Your task to perform on an android device: Add "logitech g pro" to the cart on ebay, then select checkout. Image 0: 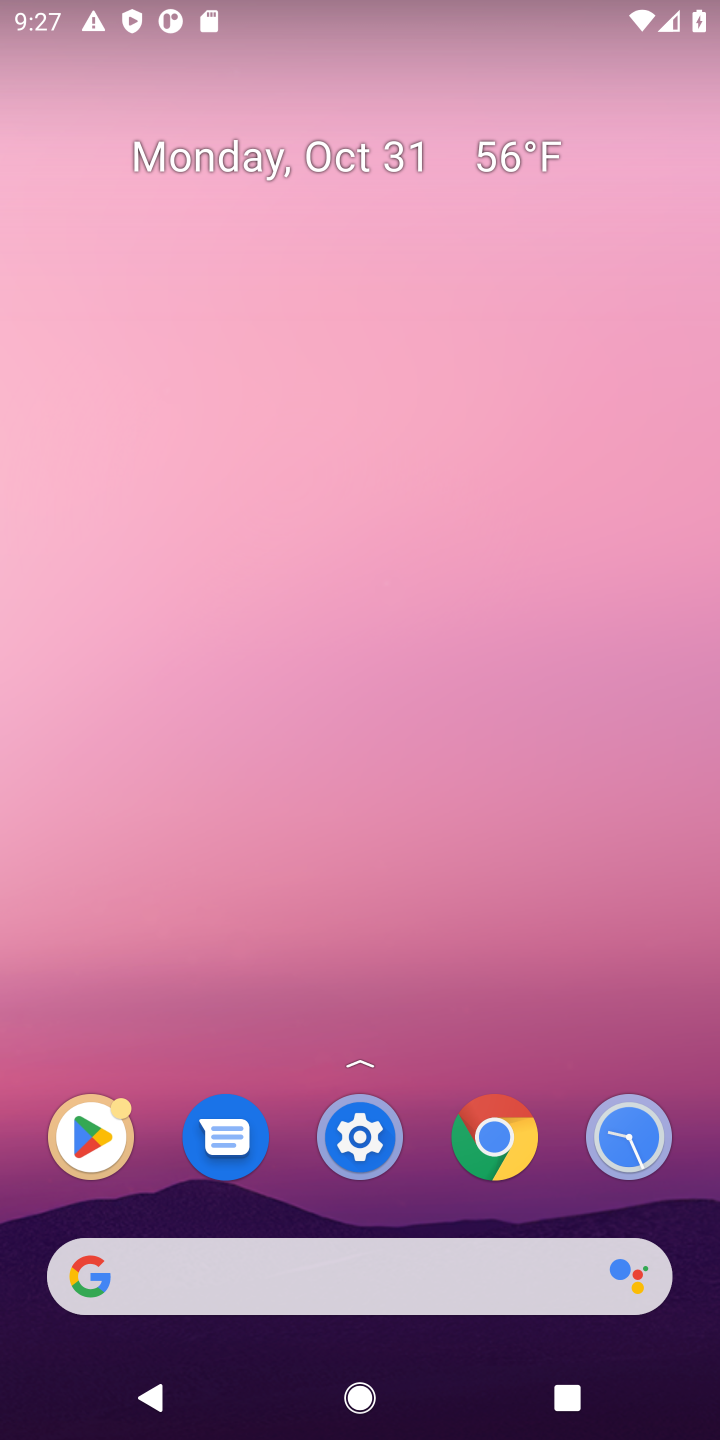
Step 0: click (495, 1139)
Your task to perform on an android device: Add "logitech g pro" to the cart on ebay, then select checkout. Image 1: 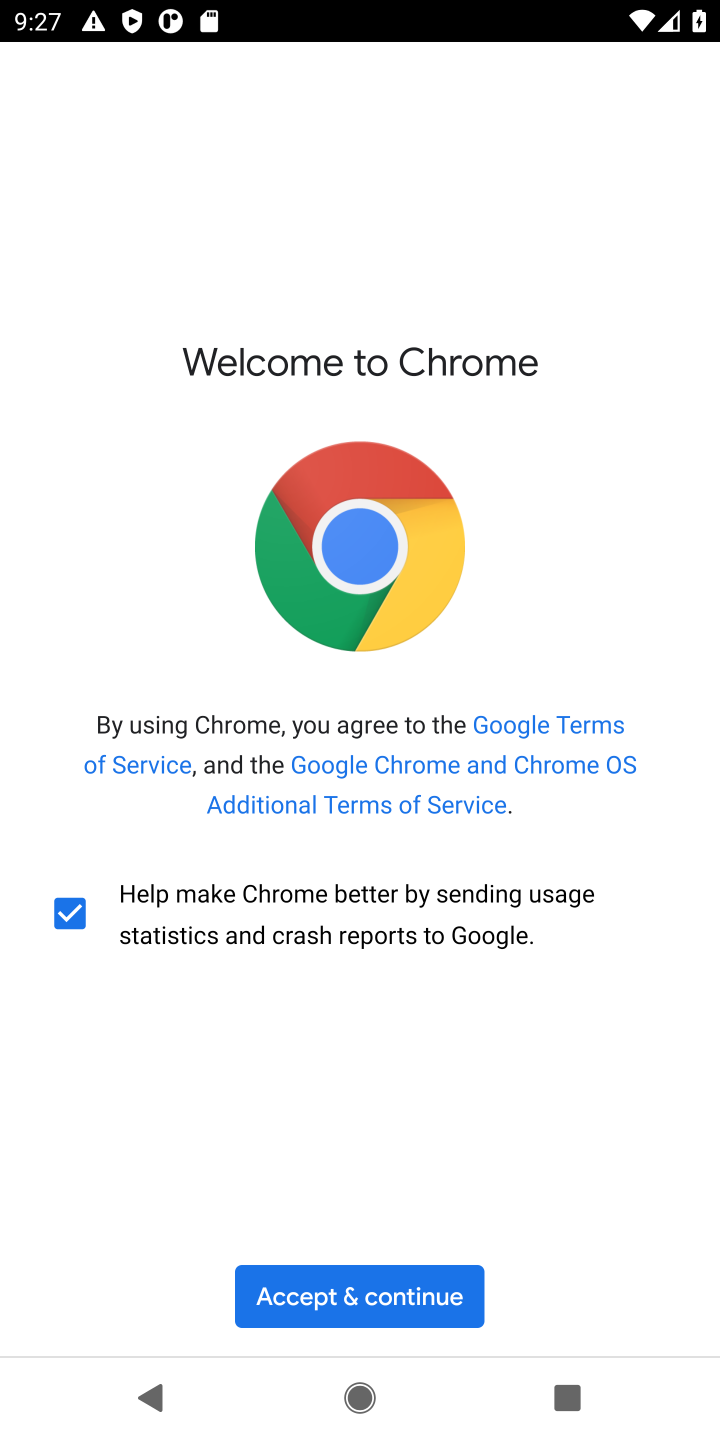
Step 1: click (411, 1288)
Your task to perform on an android device: Add "logitech g pro" to the cart on ebay, then select checkout. Image 2: 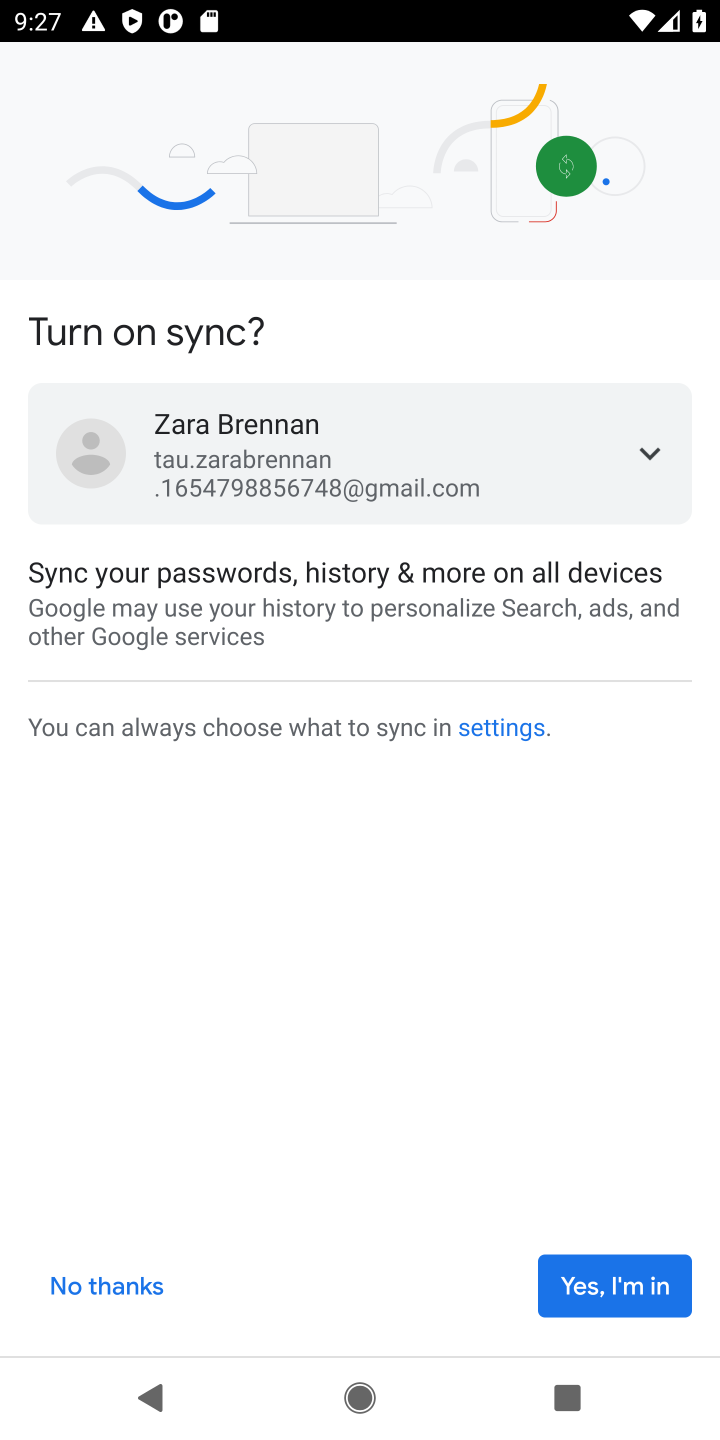
Step 2: click (613, 1271)
Your task to perform on an android device: Add "logitech g pro" to the cart on ebay, then select checkout. Image 3: 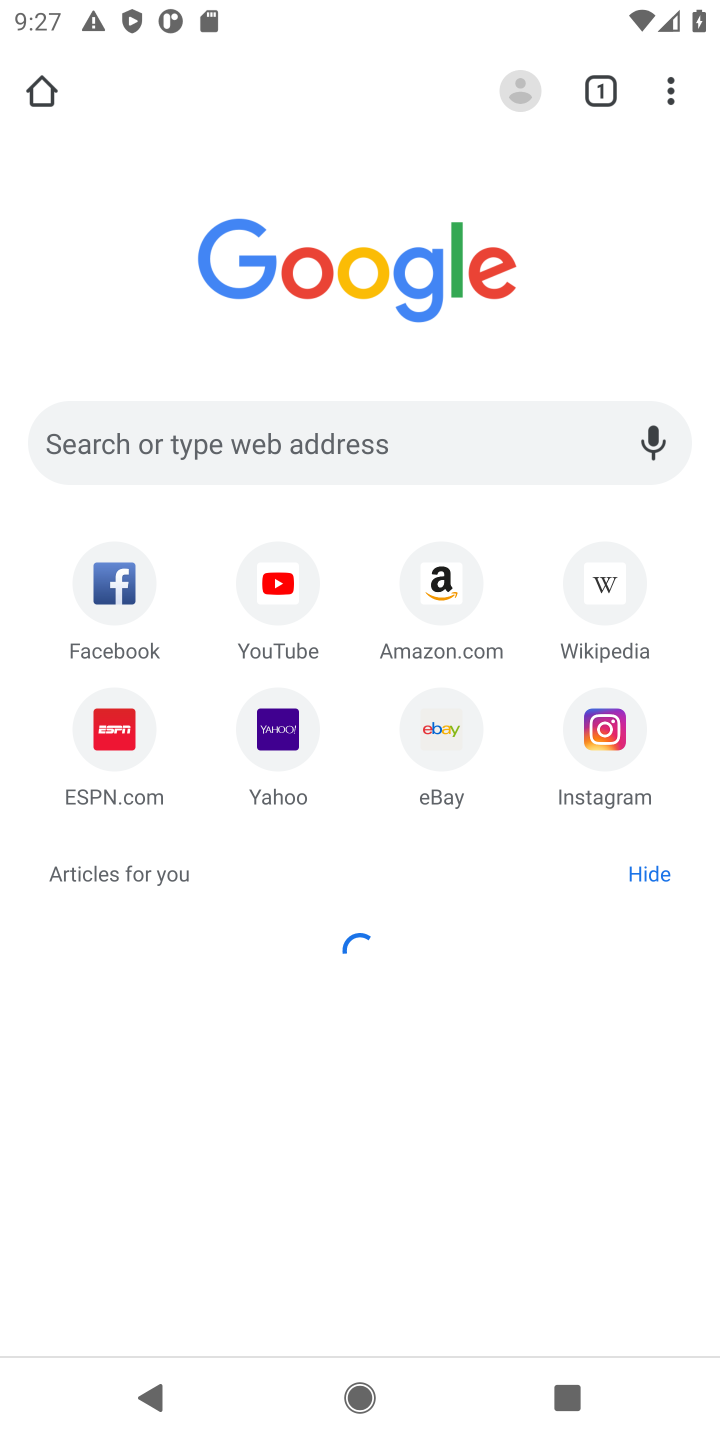
Step 3: click (497, 439)
Your task to perform on an android device: Add "logitech g pro" to the cart on ebay, then select checkout. Image 4: 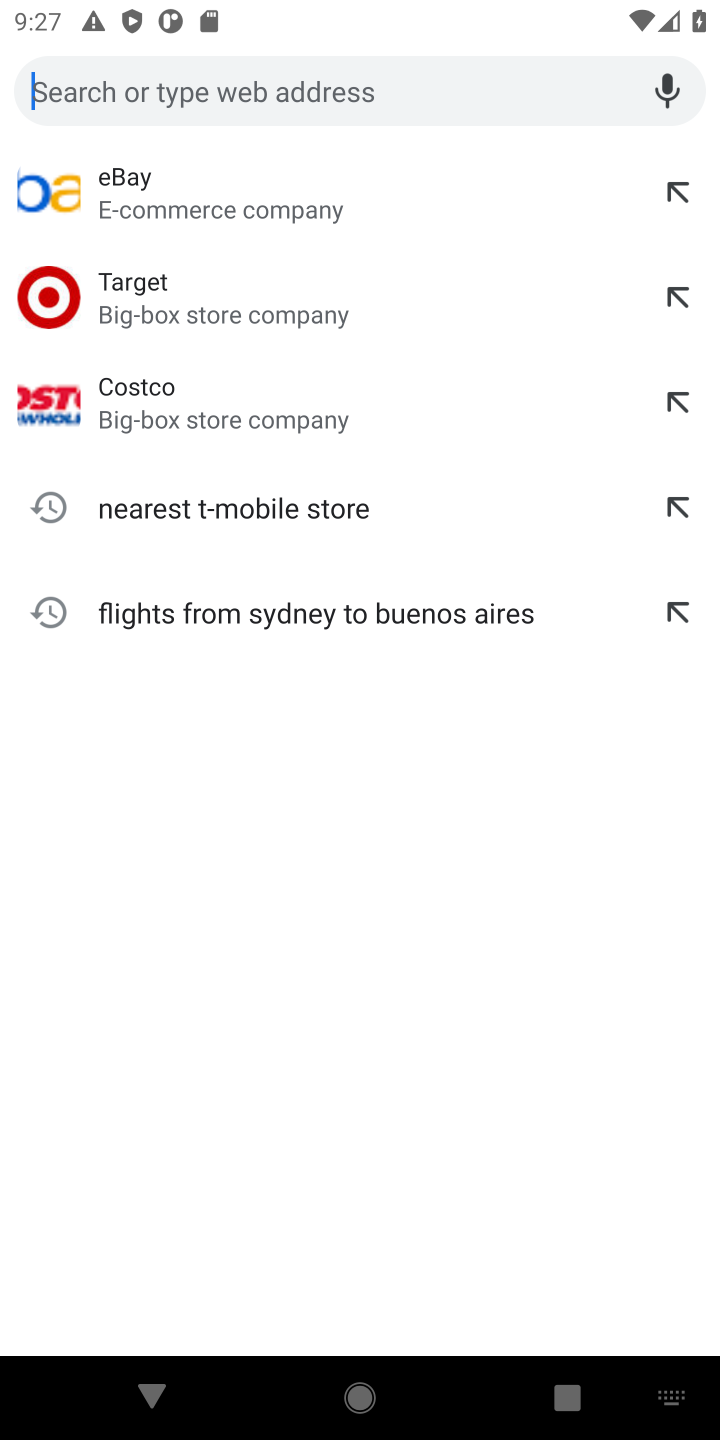
Step 4: type "ebay"
Your task to perform on an android device: Add "logitech g pro" to the cart on ebay, then select checkout. Image 5: 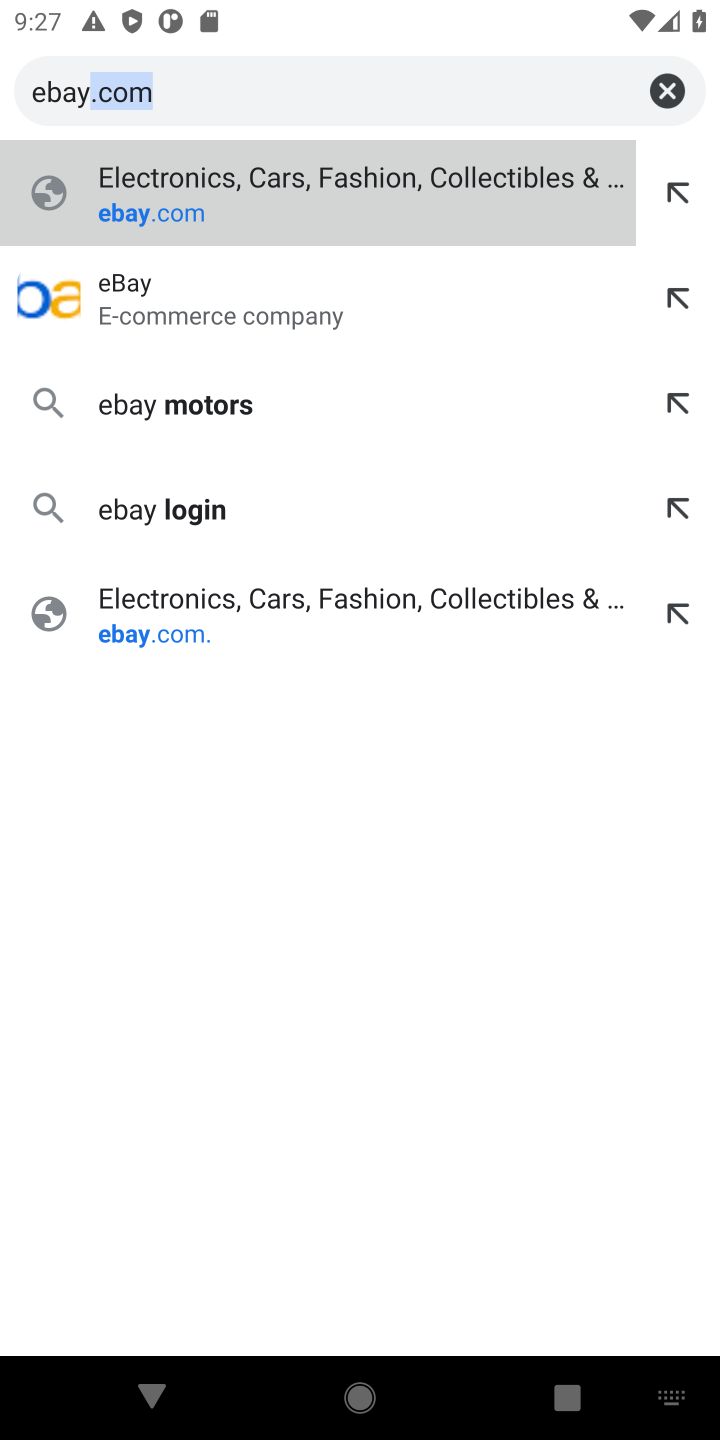
Step 5: click (109, 297)
Your task to perform on an android device: Add "logitech g pro" to the cart on ebay, then select checkout. Image 6: 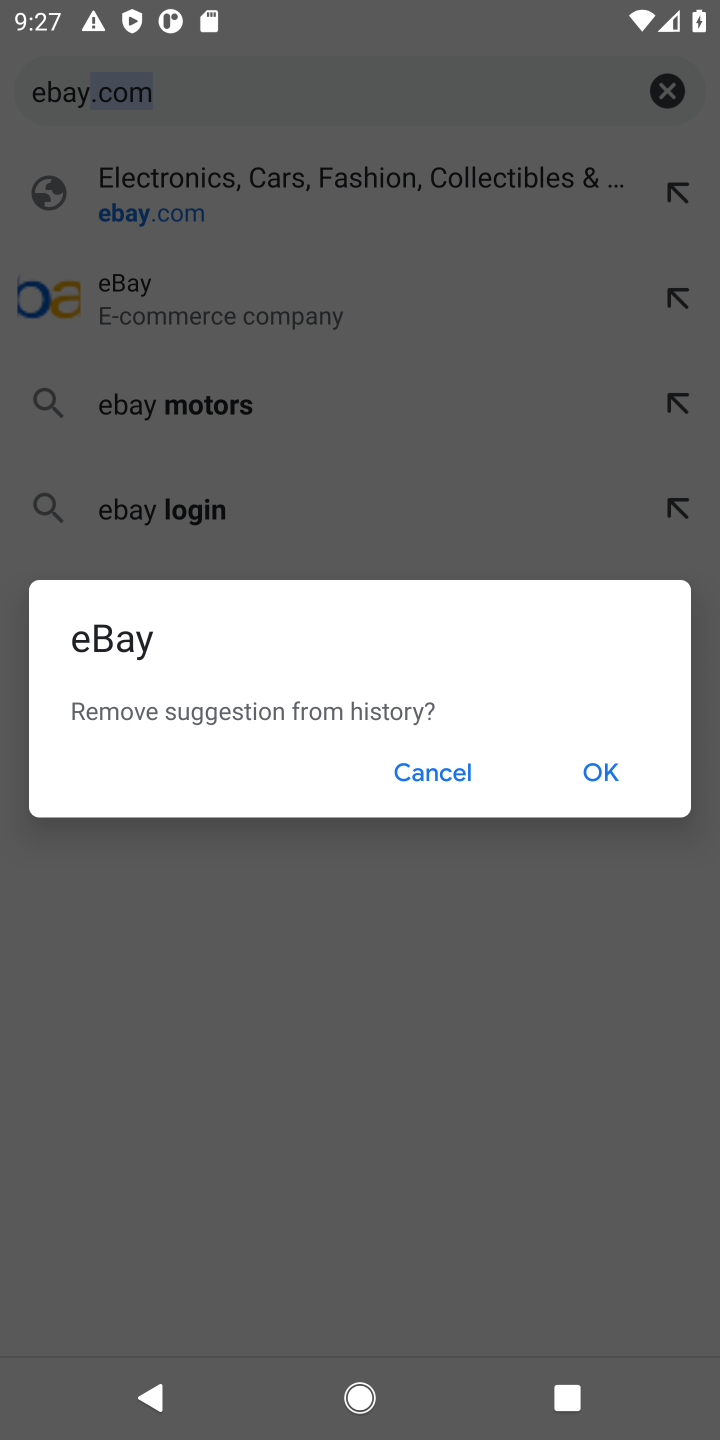
Step 6: click (585, 773)
Your task to perform on an android device: Add "logitech g pro" to the cart on ebay, then select checkout. Image 7: 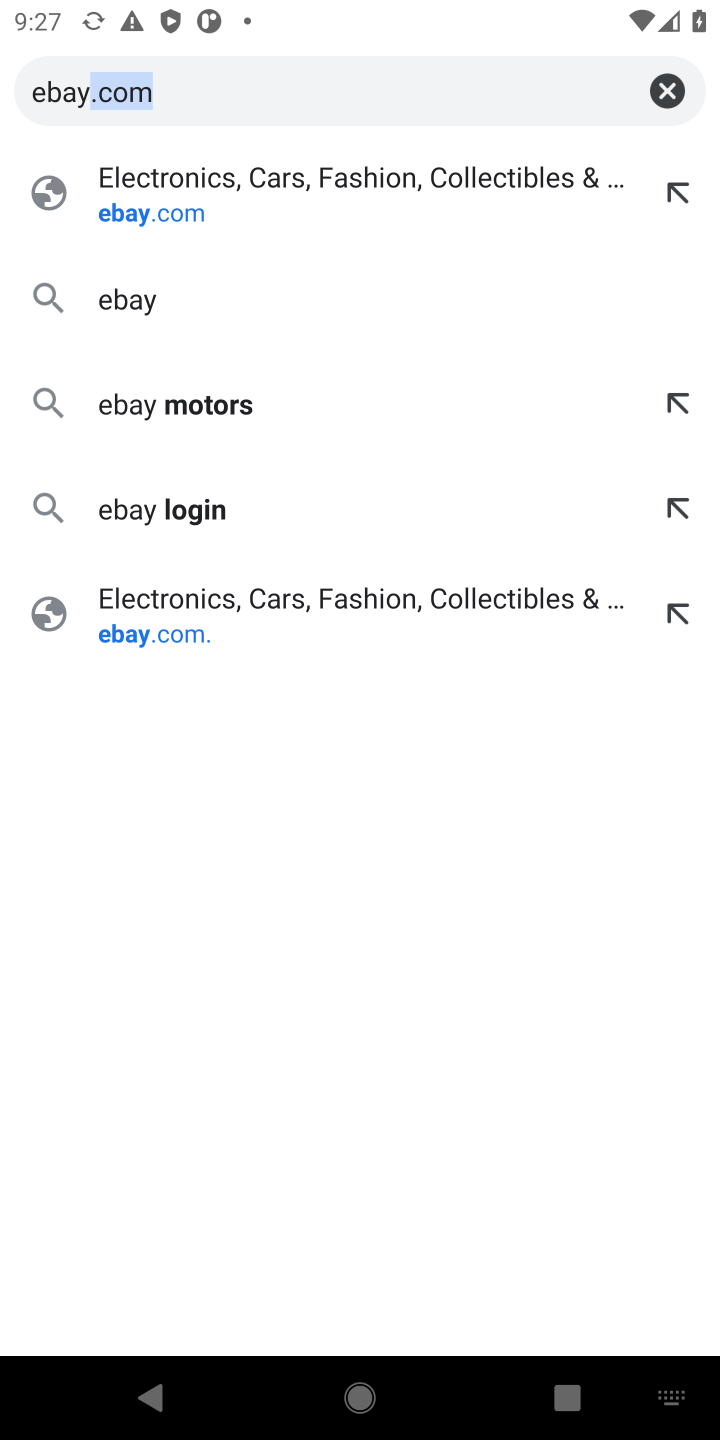
Step 7: click (198, 180)
Your task to perform on an android device: Add "logitech g pro" to the cart on ebay, then select checkout. Image 8: 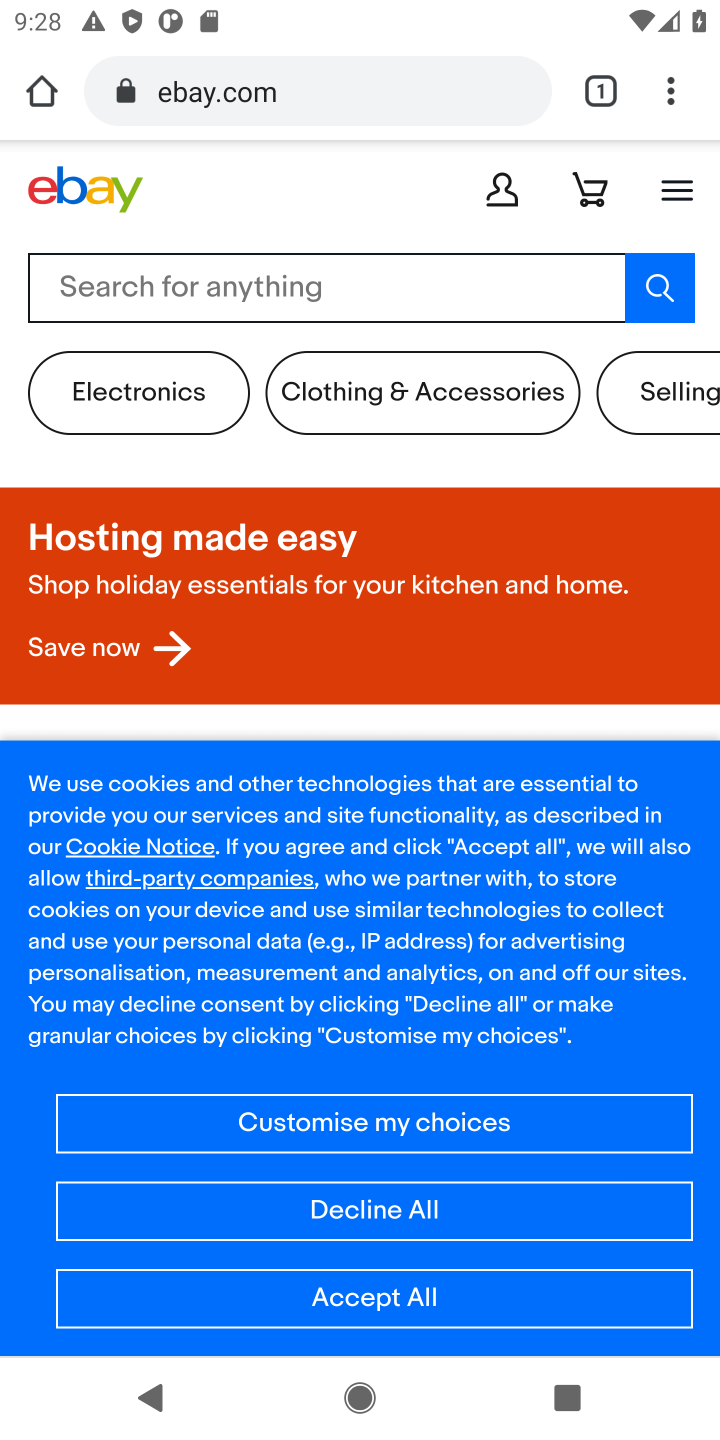
Step 8: click (441, 281)
Your task to perform on an android device: Add "logitech g pro" to the cart on ebay, then select checkout. Image 9: 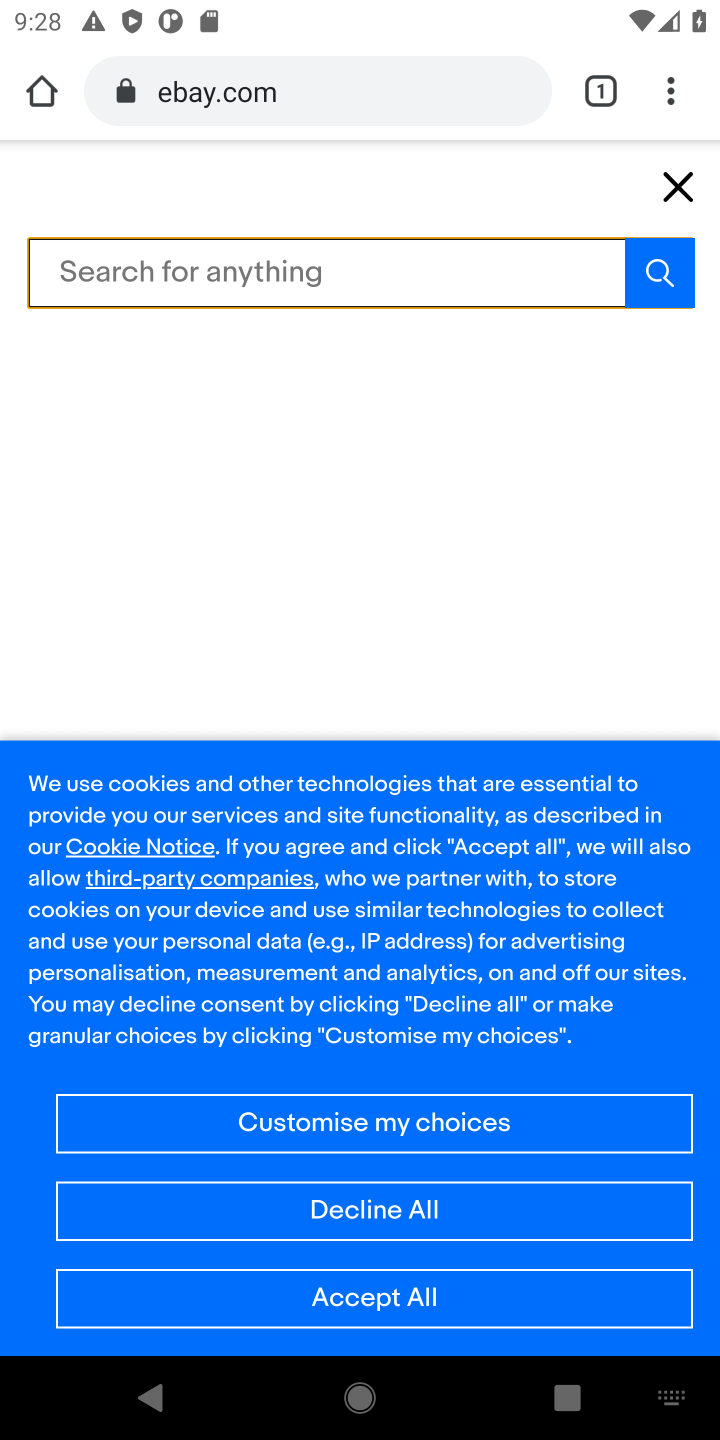
Step 9: click (415, 1304)
Your task to perform on an android device: Add "logitech g pro" to the cart on ebay, then select checkout. Image 10: 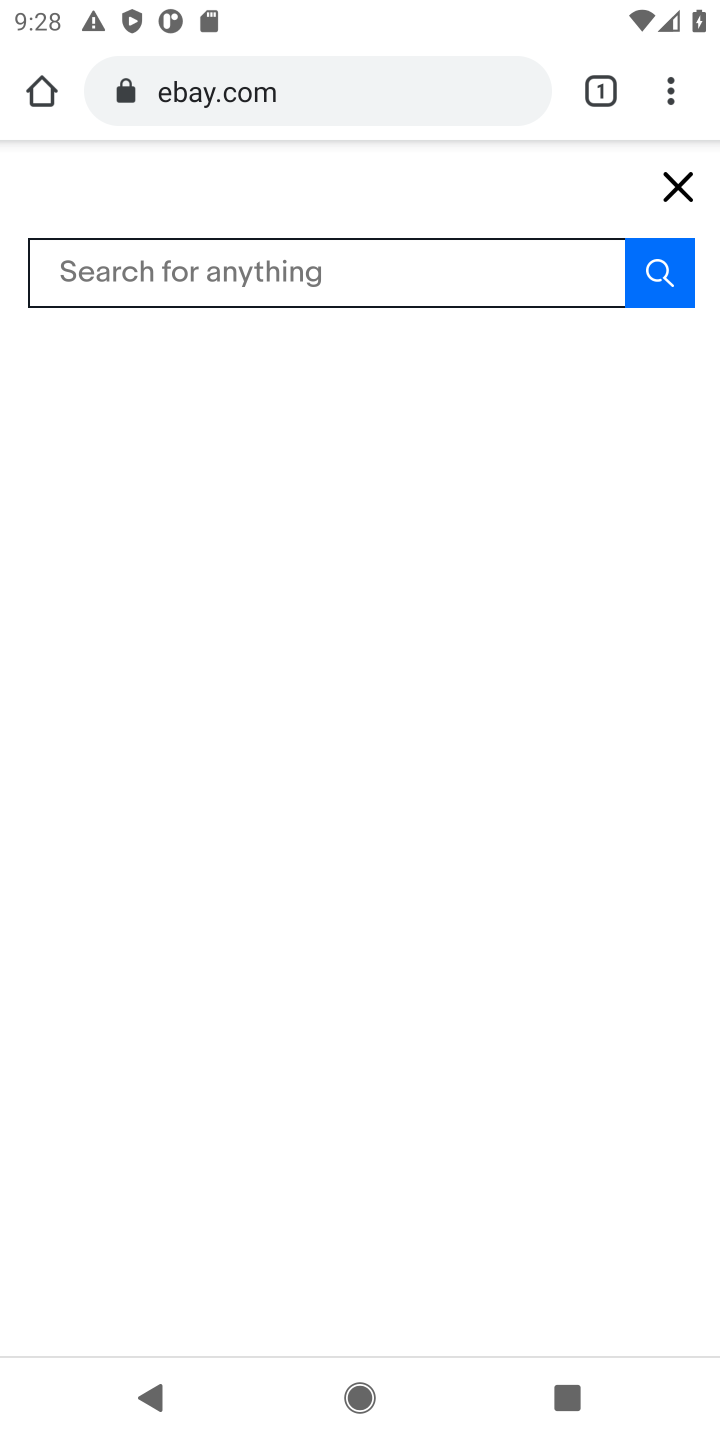
Step 10: click (343, 284)
Your task to perform on an android device: Add "logitech g pro" to the cart on ebay, then select checkout. Image 11: 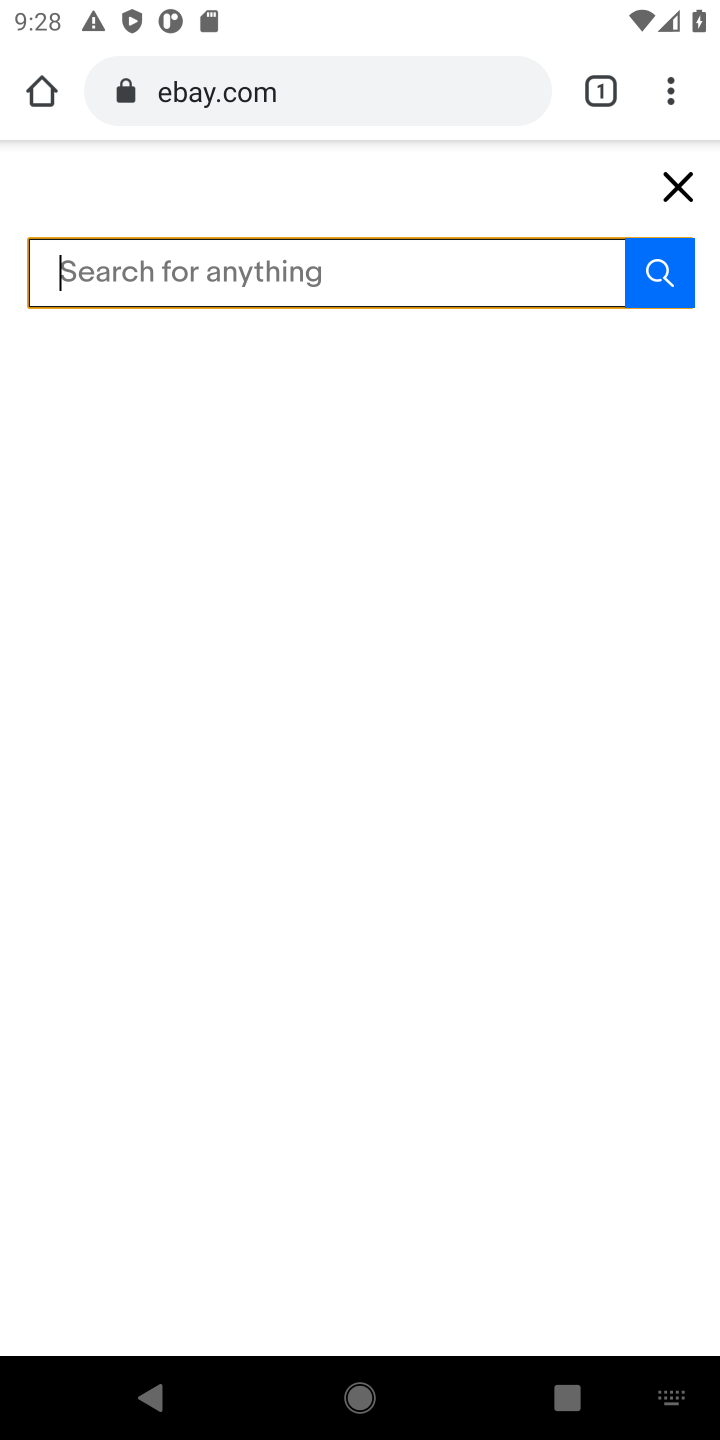
Step 11: type "logitech g pro"
Your task to perform on an android device: Add "logitech g pro" to the cart on ebay, then select checkout. Image 12: 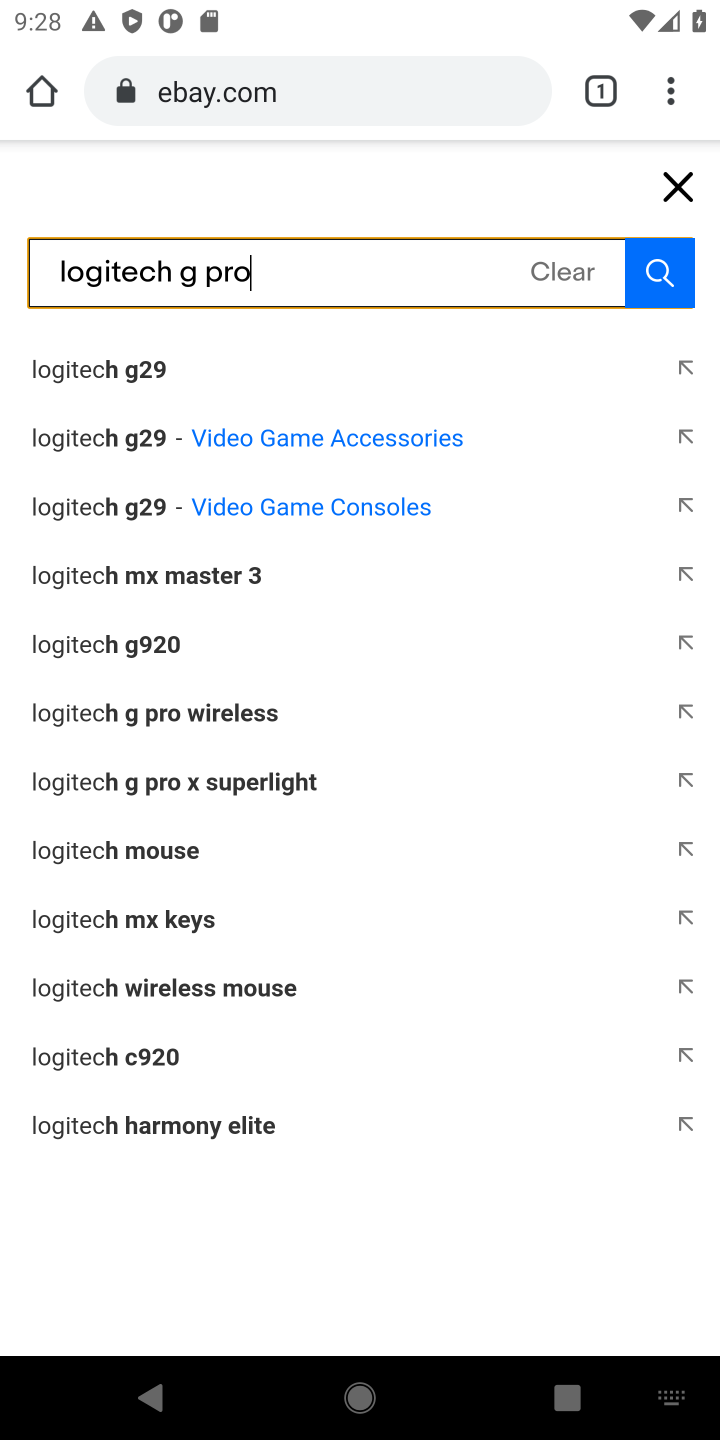
Step 12: click (672, 284)
Your task to perform on an android device: Add "logitech g pro" to the cart on ebay, then select checkout. Image 13: 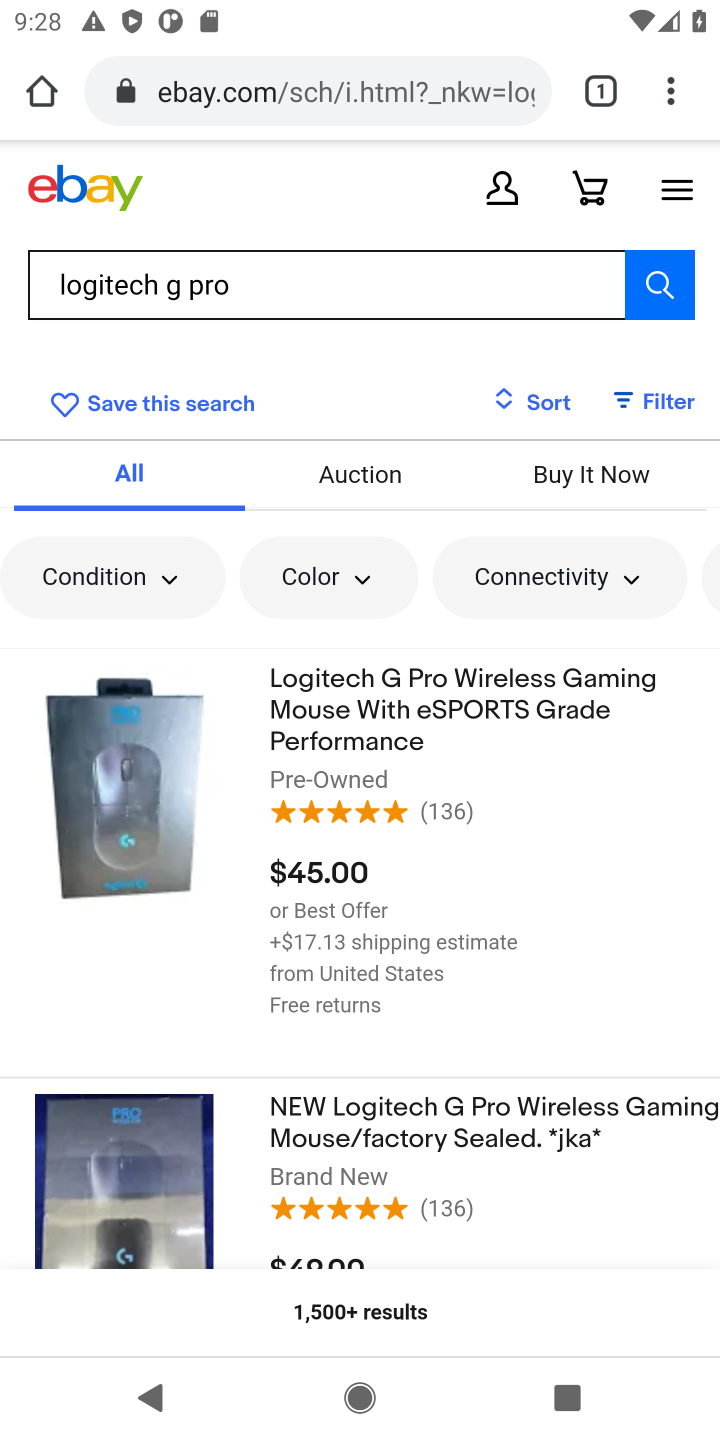
Step 13: click (375, 701)
Your task to perform on an android device: Add "logitech g pro" to the cart on ebay, then select checkout. Image 14: 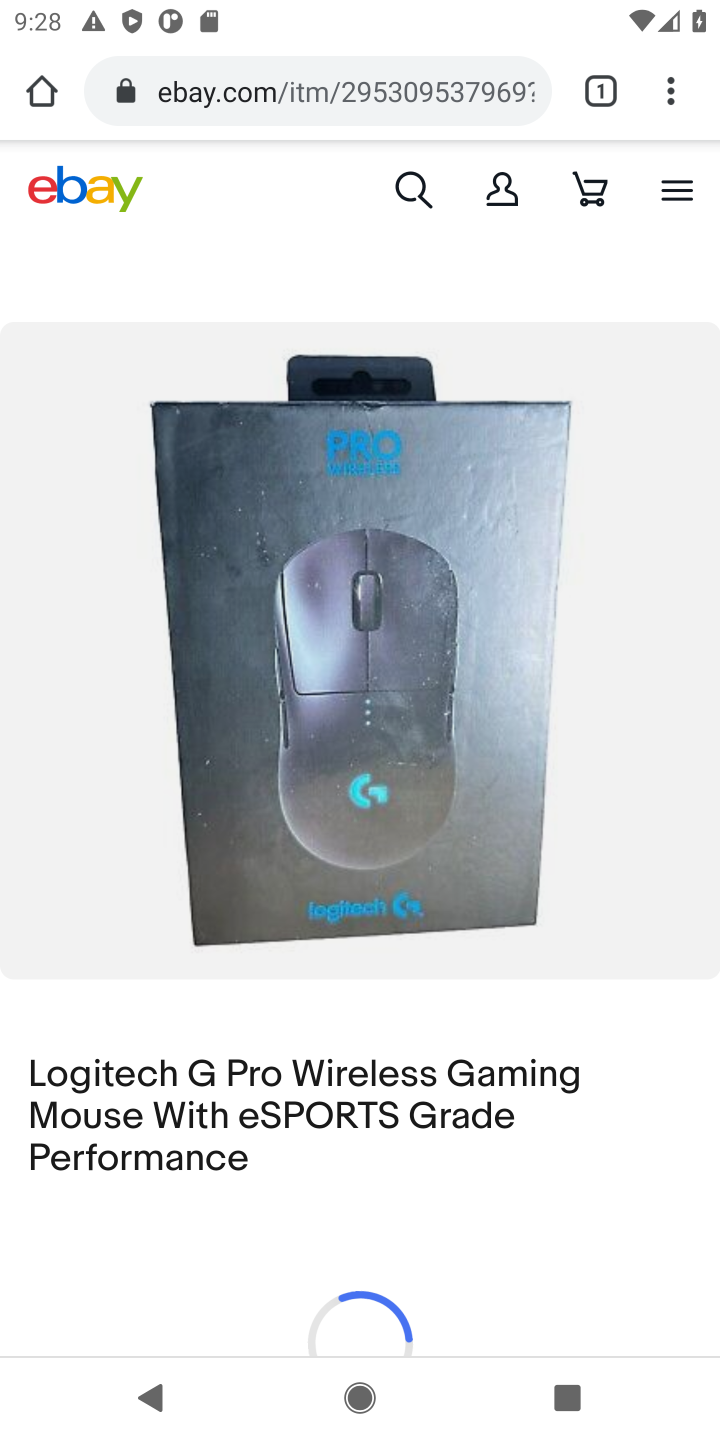
Step 14: drag from (479, 1089) to (492, 580)
Your task to perform on an android device: Add "logitech g pro" to the cart on ebay, then select checkout. Image 15: 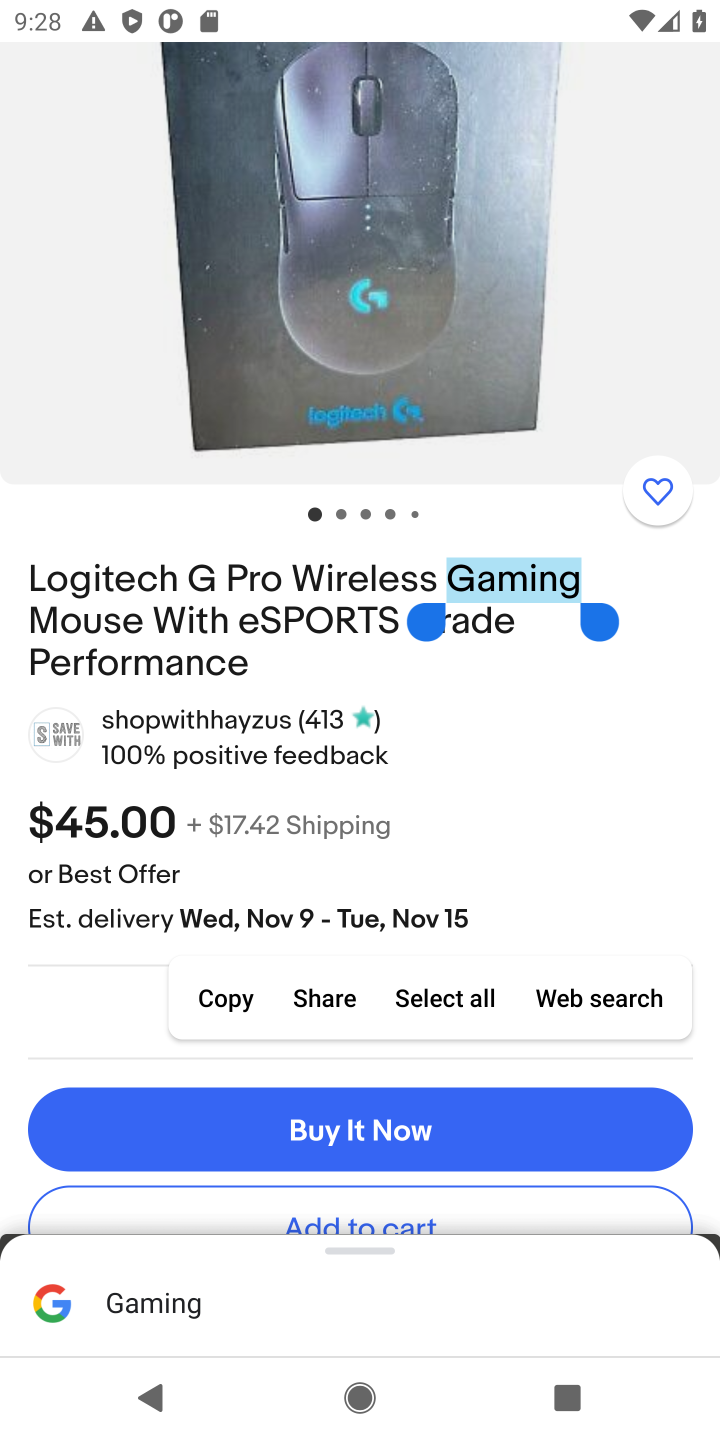
Step 15: drag from (453, 802) to (442, 232)
Your task to perform on an android device: Add "logitech g pro" to the cart on ebay, then select checkout. Image 16: 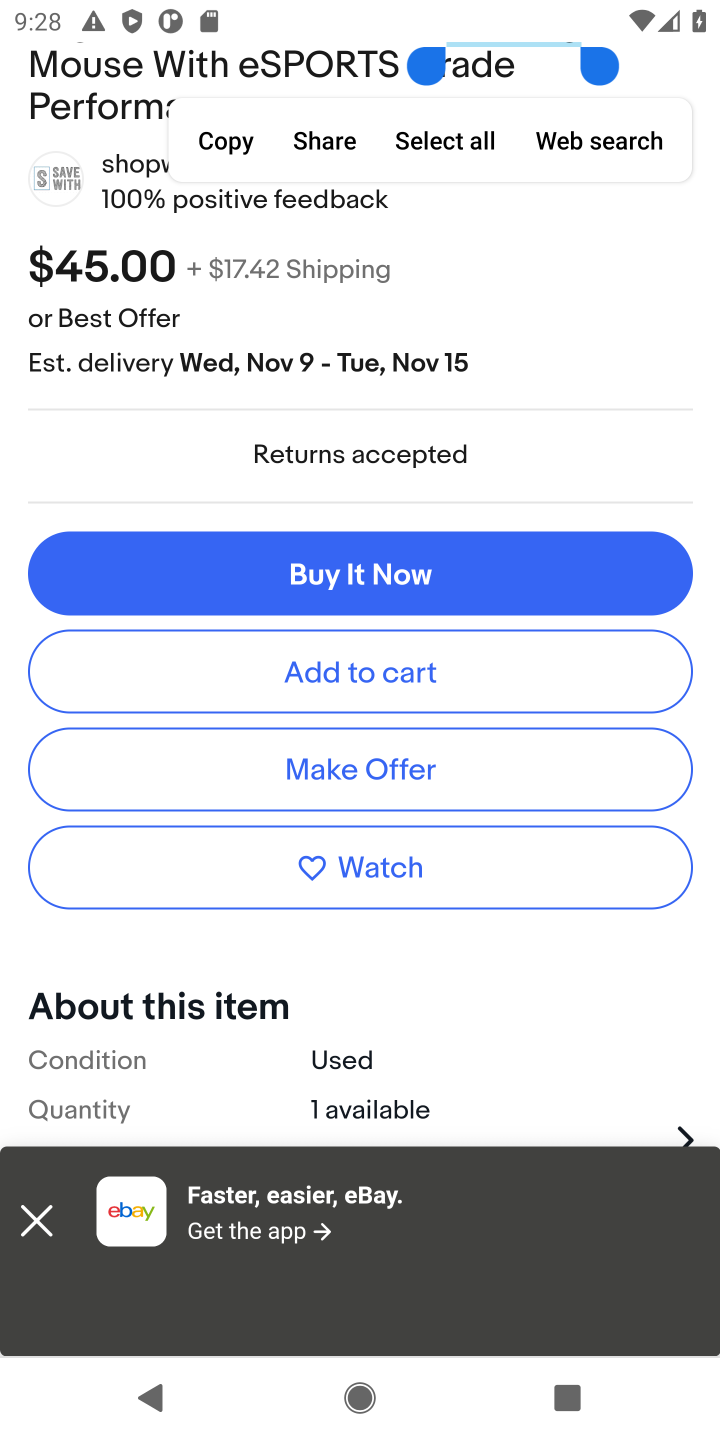
Step 16: click (366, 660)
Your task to perform on an android device: Add "logitech g pro" to the cart on ebay, then select checkout. Image 17: 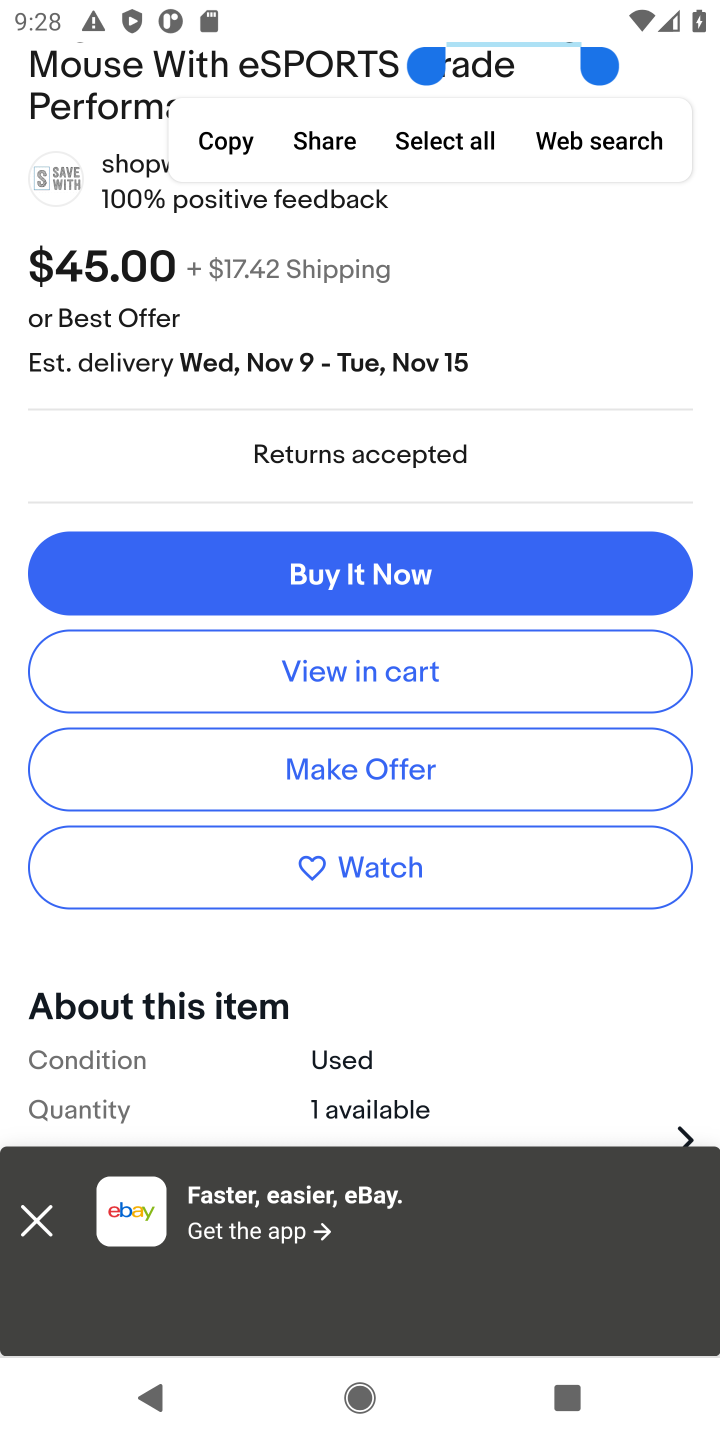
Step 17: drag from (486, 327) to (476, 1197)
Your task to perform on an android device: Add "logitech g pro" to the cart on ebay, then select checkout. Image 18: 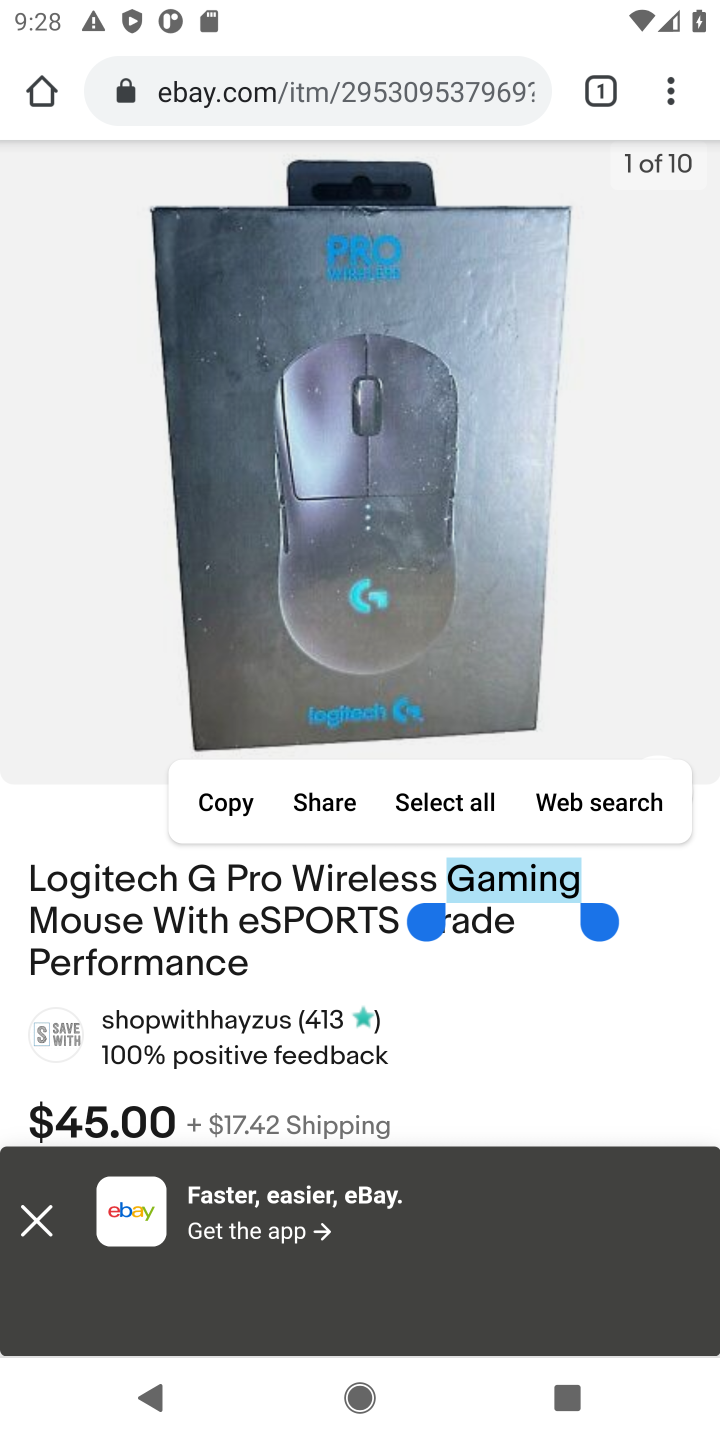
Step 18: drag from (607, 329) to (627, 1111)
Your task to perform on an android device: Add "logitech g pro" to the cart on ebay, then select checkout. Image 19: 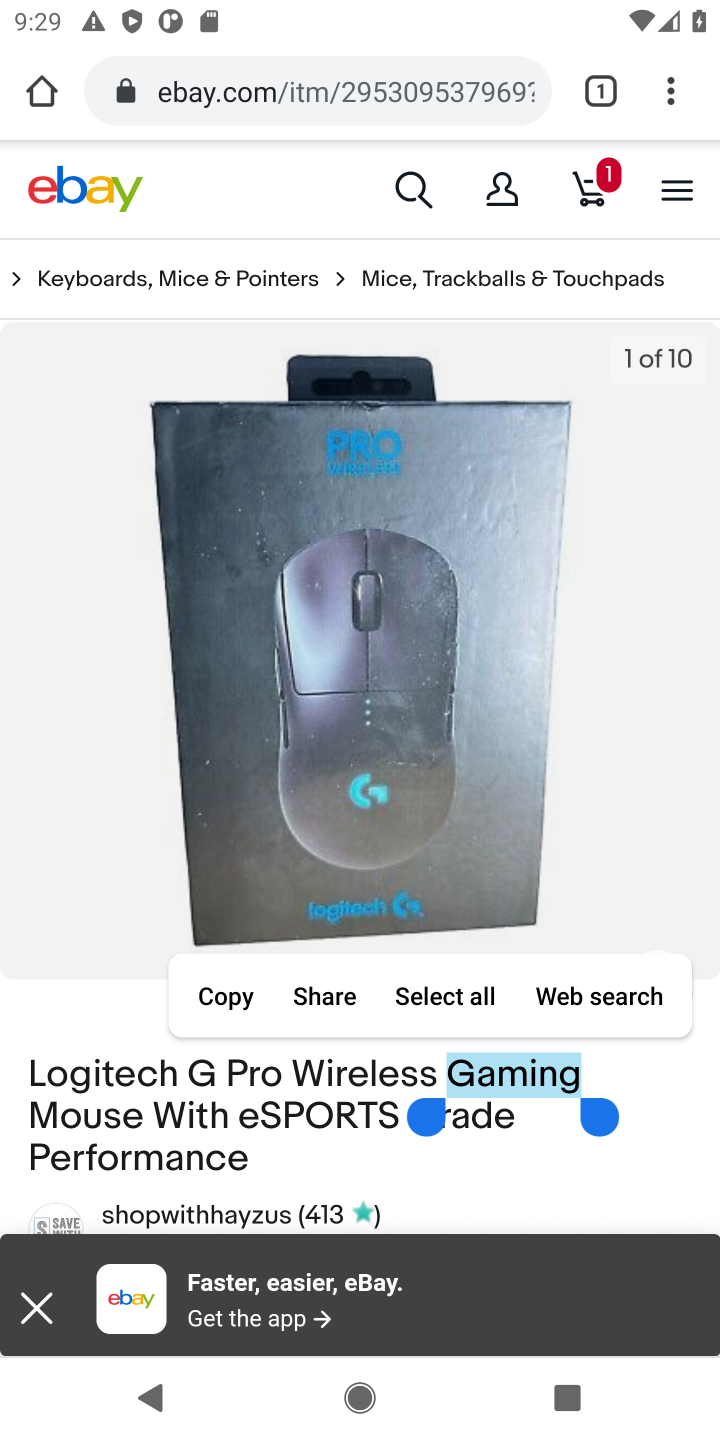
Step 19: click (591, 190)
Your task to perform on an android device: Add "logitech g pro" to the cart on ebay, then select checkout. Image 20: 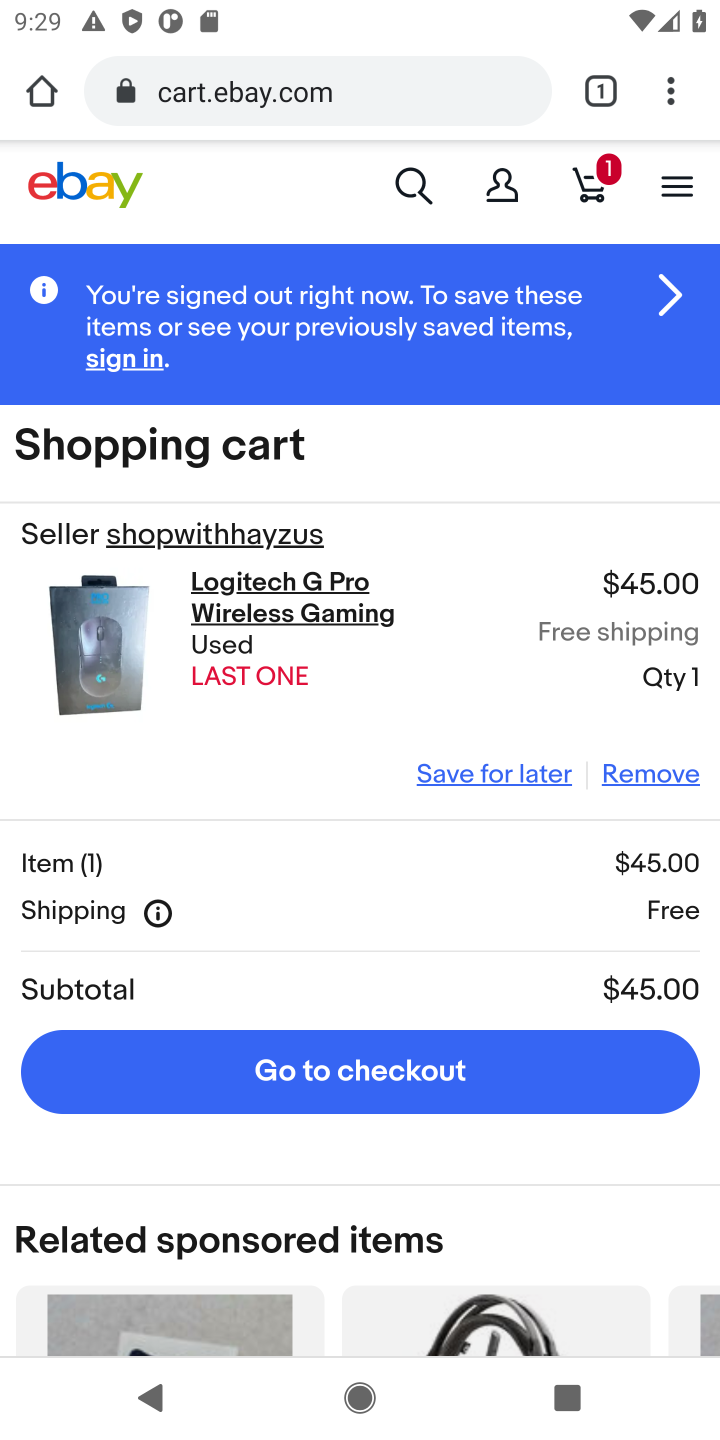
Step 20: click (318, 1071)
Your task to perform on an android device: Add "logitech g pro" to the cart on ebay, then select checkout. Image 21: 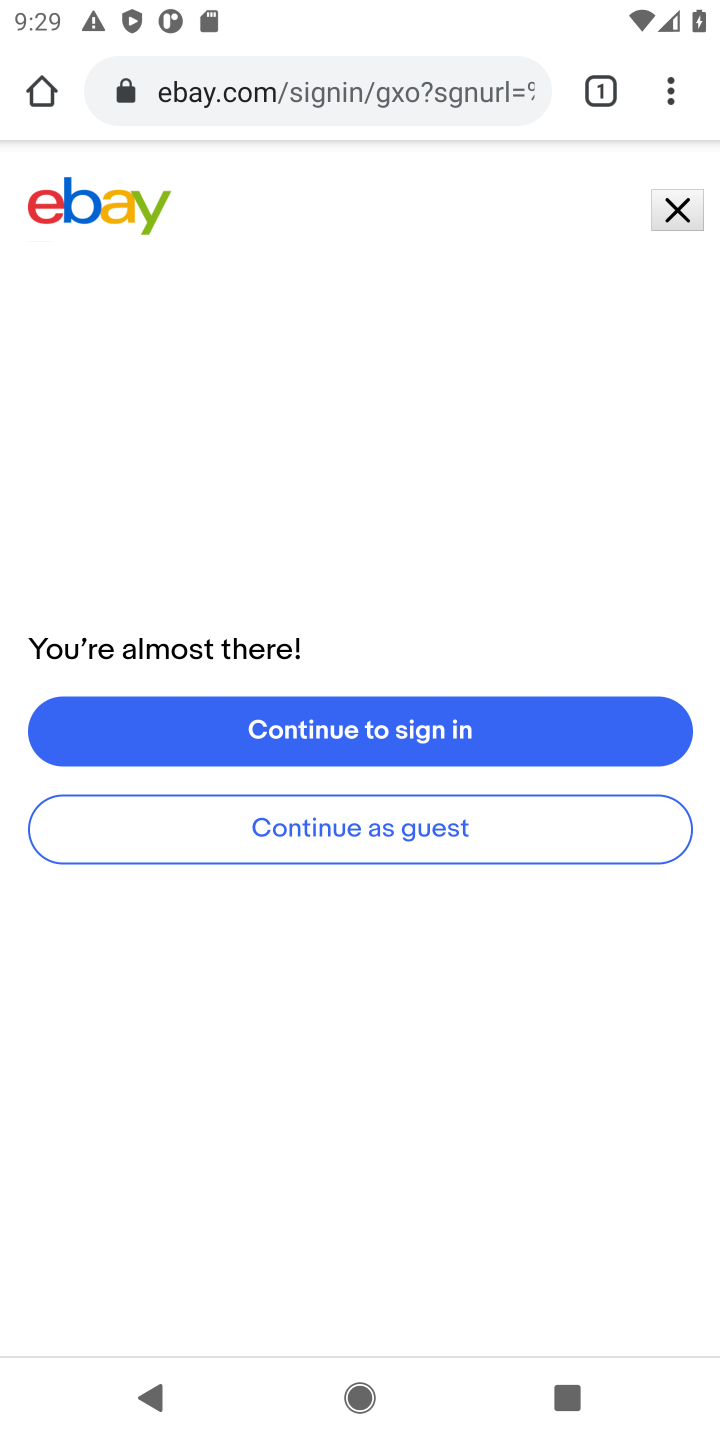
Step 21: task complete